Your task to perform on an android device: Clear all items from cart on target.com. Add razer nari to the cart on target.com, then select checkout. Image 0: 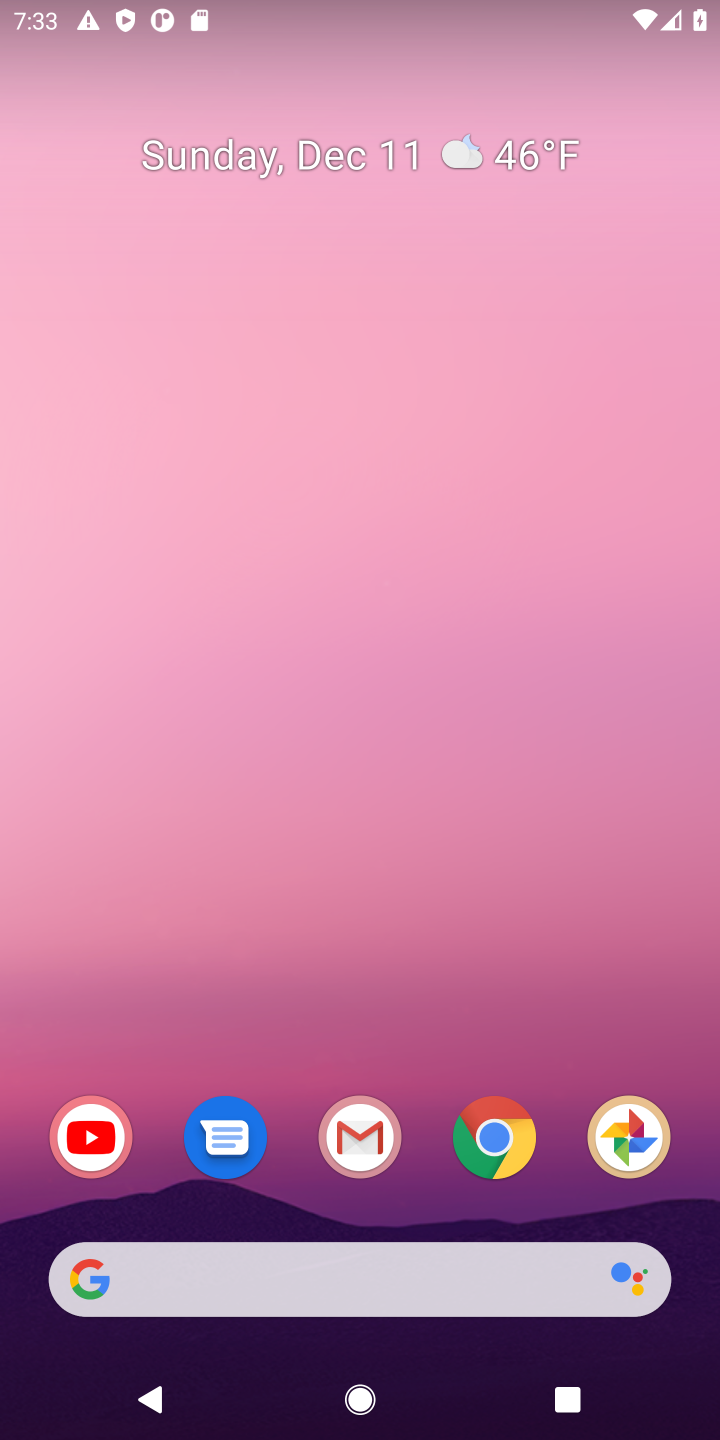
Step 0: click (484, 1145)
Your task to perform on an android device: Clear all items from cart on target.com. Add razer nari to the cart on target.com, then select checkout. Image 1: 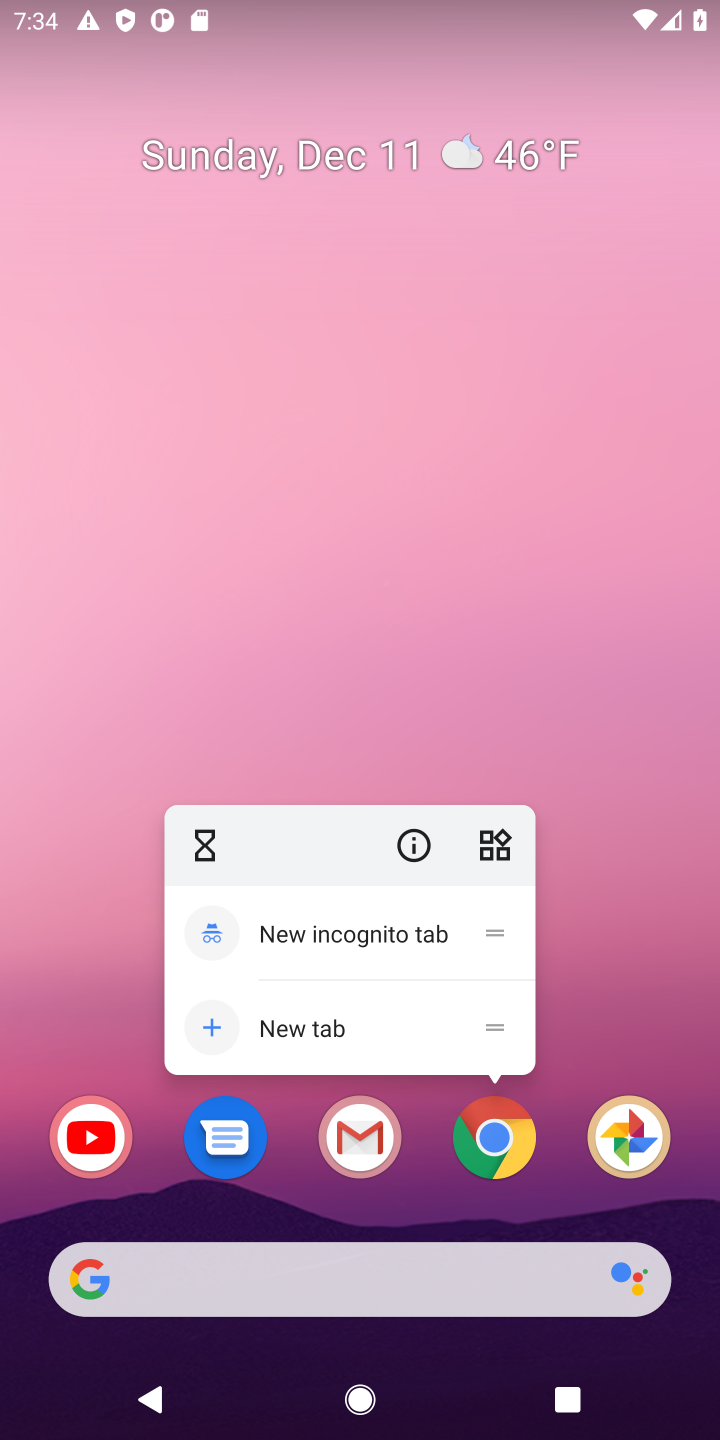
Step 1: click (496, 1148)
Your task to perform on an android device: Clear all items from cart on target.com. Add razer nari to the cart on target.com, then select checkout. Image 2: 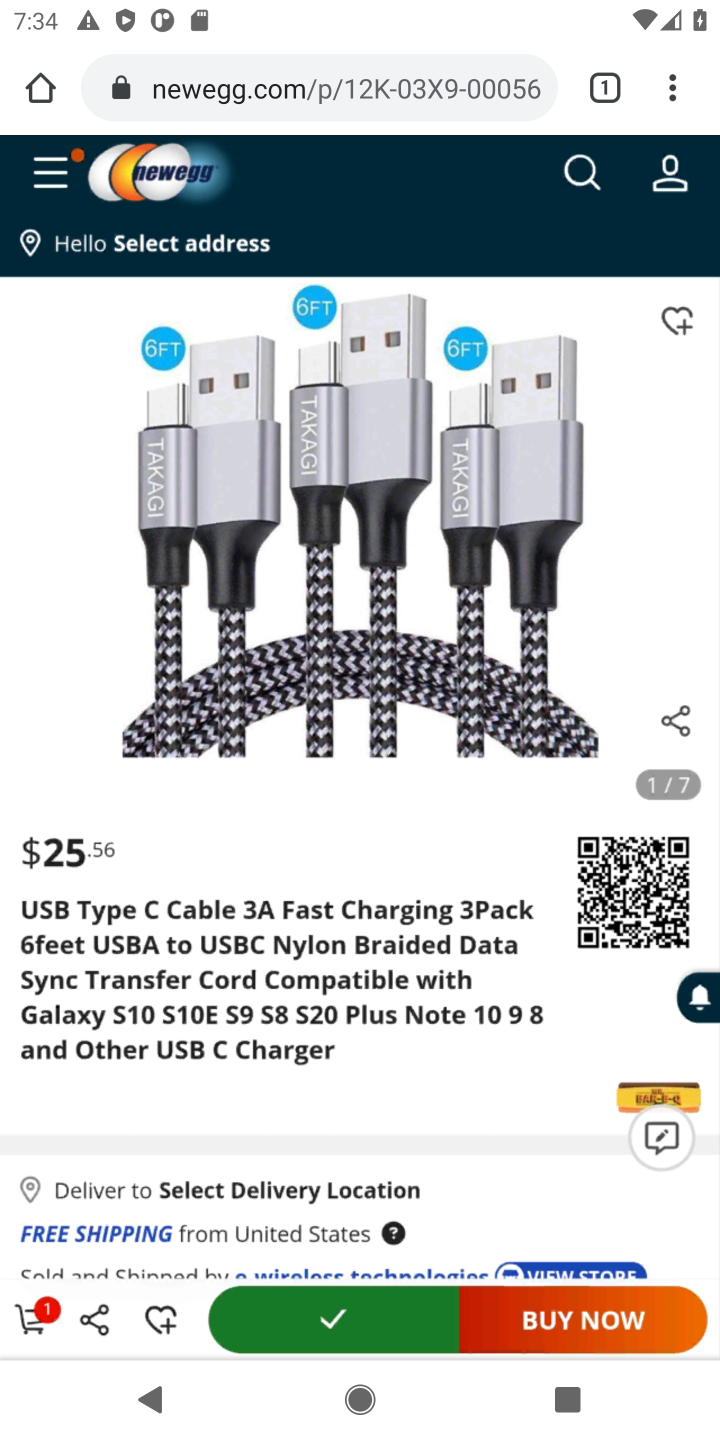
Step 2: task complete